Your task to perform on an android device: open sync settings in chrome Image 0: 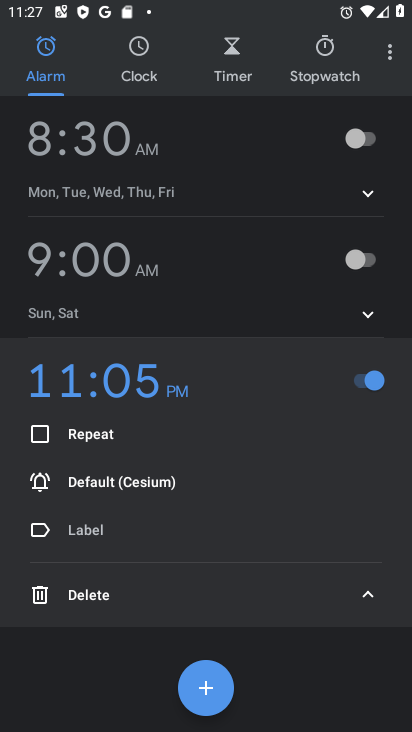
Step 0: press home button
Your task to perform on an android device: open sync settings in chrome Image 1: 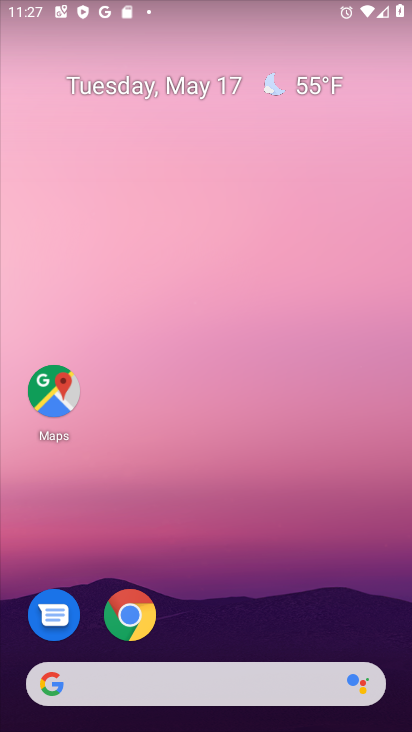
Step 1: click (139, 613)
Your task to perform on an android device: open sync settings in chrome Image 2: 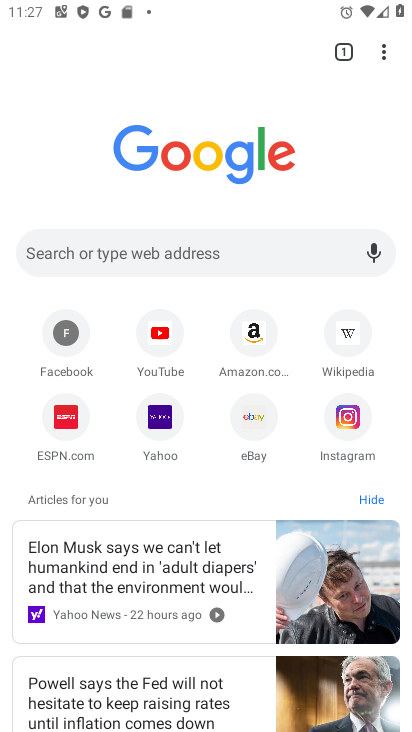
Step 2: drag from (387, 55) to (176, 448)
Your task to perform on an android device: open sync settings in chrome Image 3: 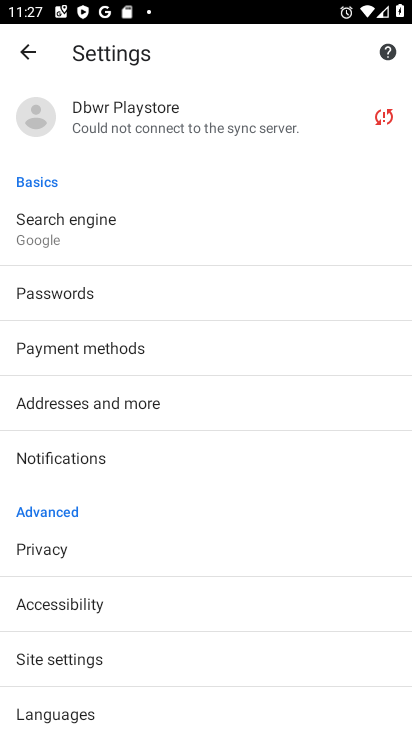
Step 3: click (208, 121)
Your task to perform on an android device: open sync settings in chrome Image 4: 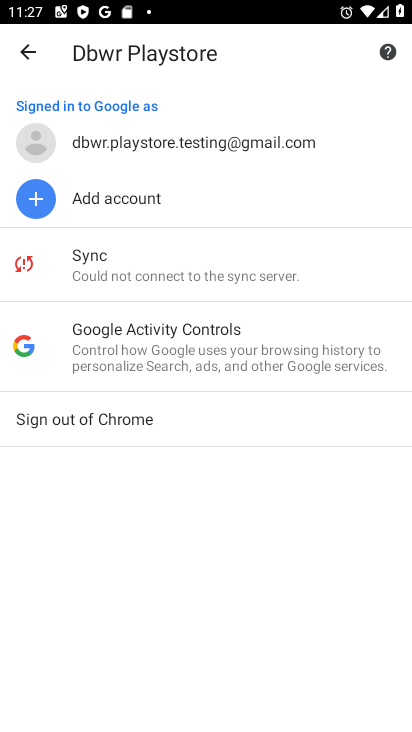
Step 4: click (149, 250)
Your task to perform on an android device: open sync settings in chrome Image 5: 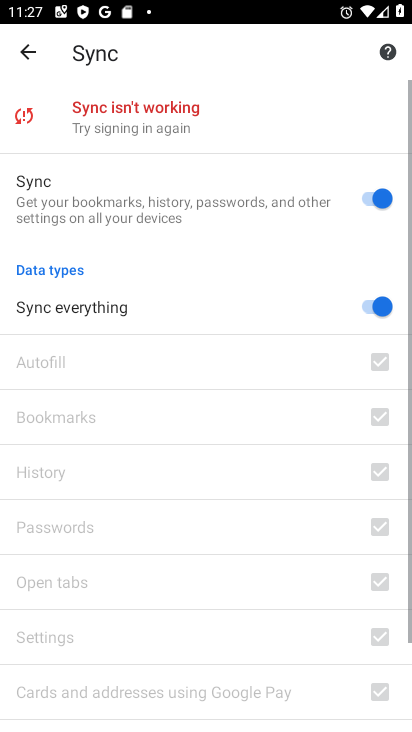
Step 5: task complete